Your task to perform on an android device: Open Youtube and go to "Your channel" Image 0: 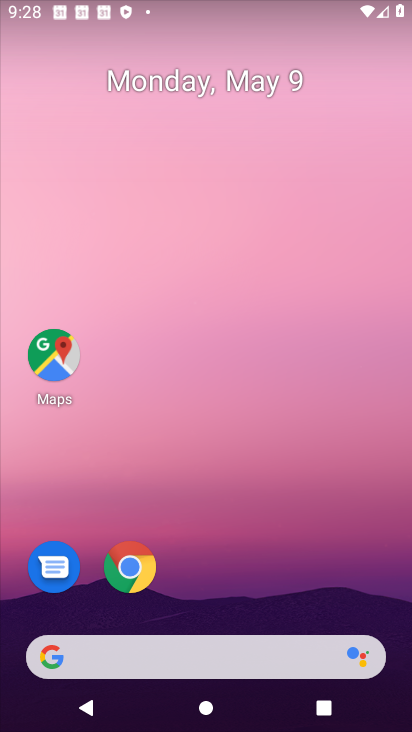
Step 0: drag from (198, 663) to (154, 250)
Your task to perform on an android device: Open Youtube and go to "Your channel" Image 1: 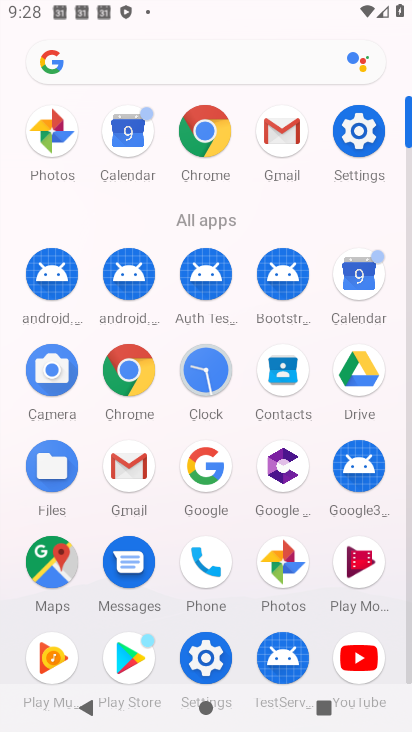
Step 1: click (367, 679)
Your task to perform on an android device: Open Youtube and go to "Your channel" Image 2: 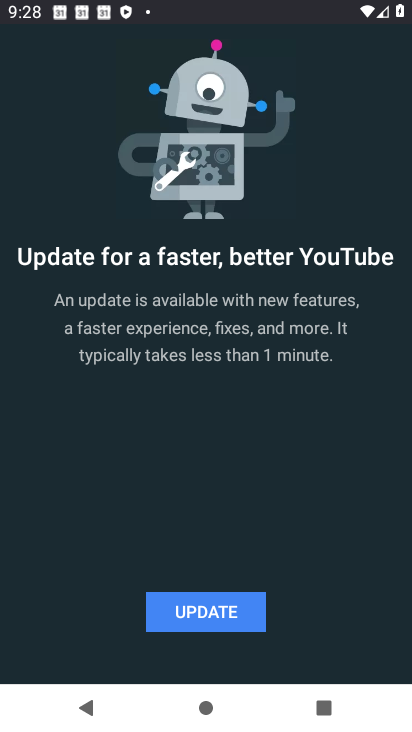
Step 2: click (216, 630)
Your task to perform on an android device: Open Youtube and go to "Your channel" Image 3: 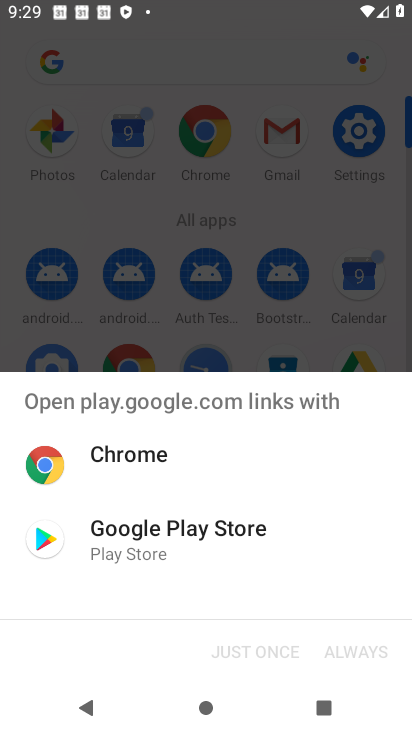
Step 3: click (195, 536)
Your task to perform on an android device: Open Youtube and go to "Your channel" Image 4: 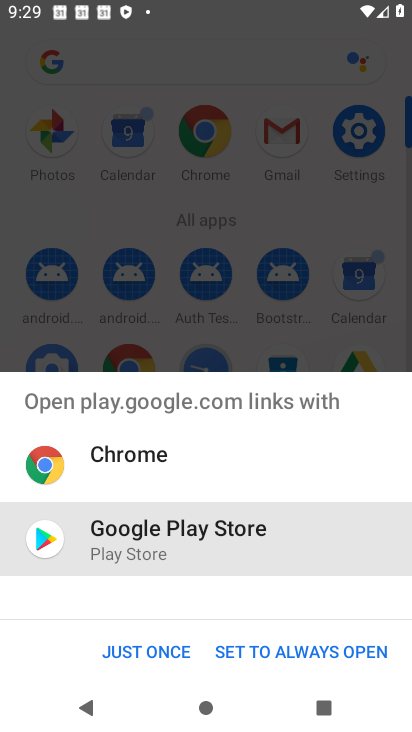
Step 4: click (186, 649)
Your task to perform on an android device: Open Youtube and go to "Your channel" Image 5: 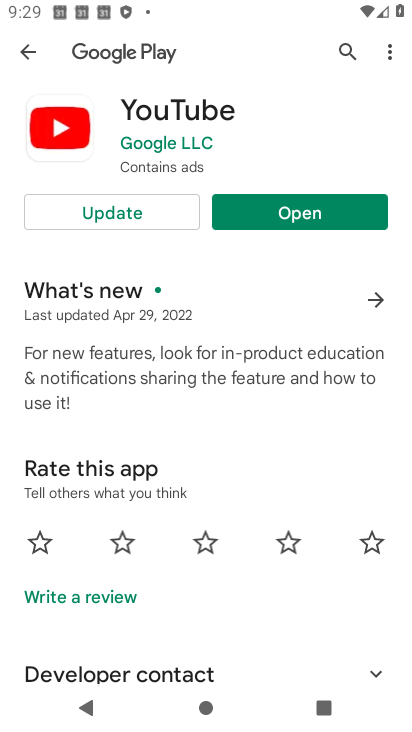
Step 5: click (150, 213)
Your task to perform on an android device: Open Youtube and go to "Your channel" Image 6: 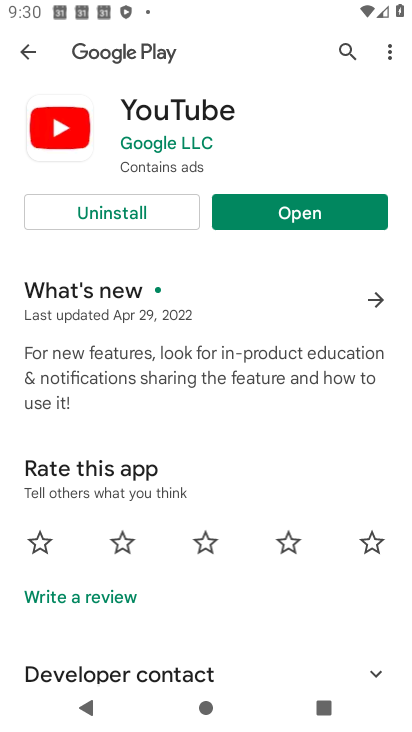
Step 6: click (307, 223)
Your task to perform on an android device: Open Youtube and go to "Your channel" Image 7: 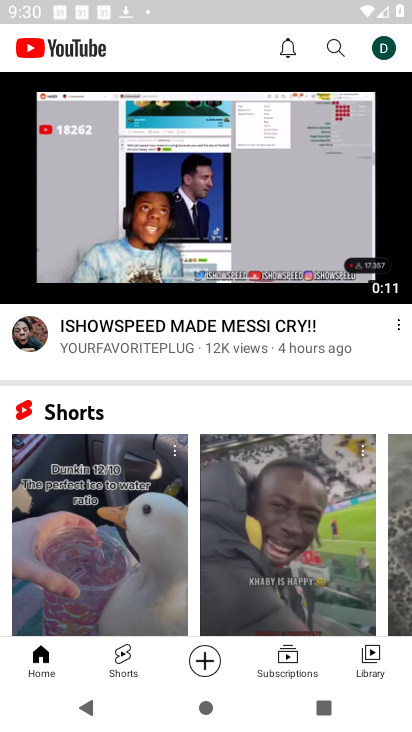
Step 7: click (385, 49)
Your task to perform on an android device: Open Youtube and go to "Your channel" Image 8: 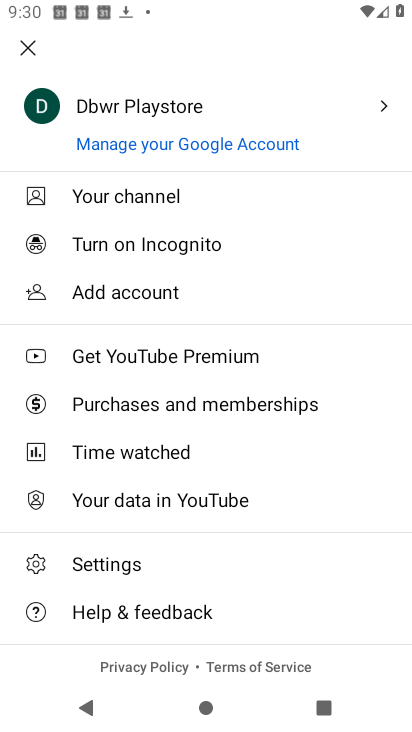
Step 8: click (132, 192)
Your task to perform on an android device: Open Youtube and go to "Your channel" Image 9: 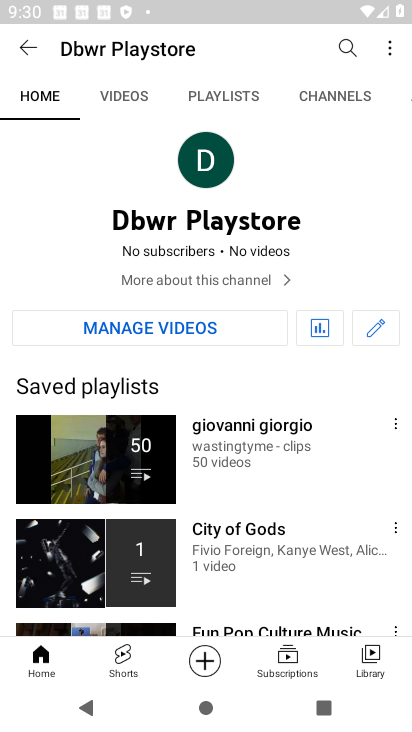
Step 9: task complete